Your task to perform on an android device: Search for a new blush Image 0: 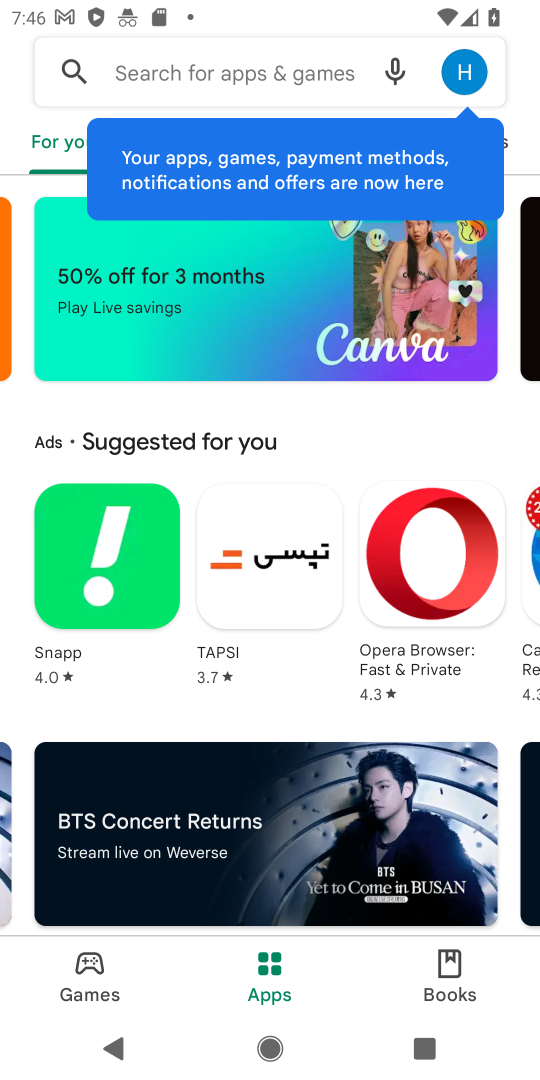
Step 0: press home button
Your task to perform on an android device: Search for a new blush Image 1: 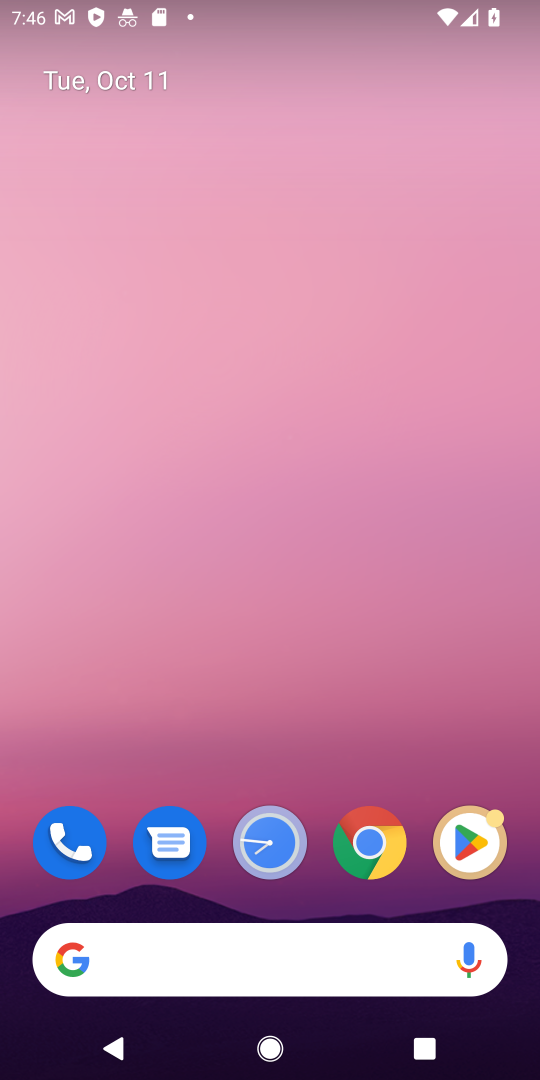
Step 1: click (219, 985)
Your task to perform on an android device: Search for a new blush Image 2: 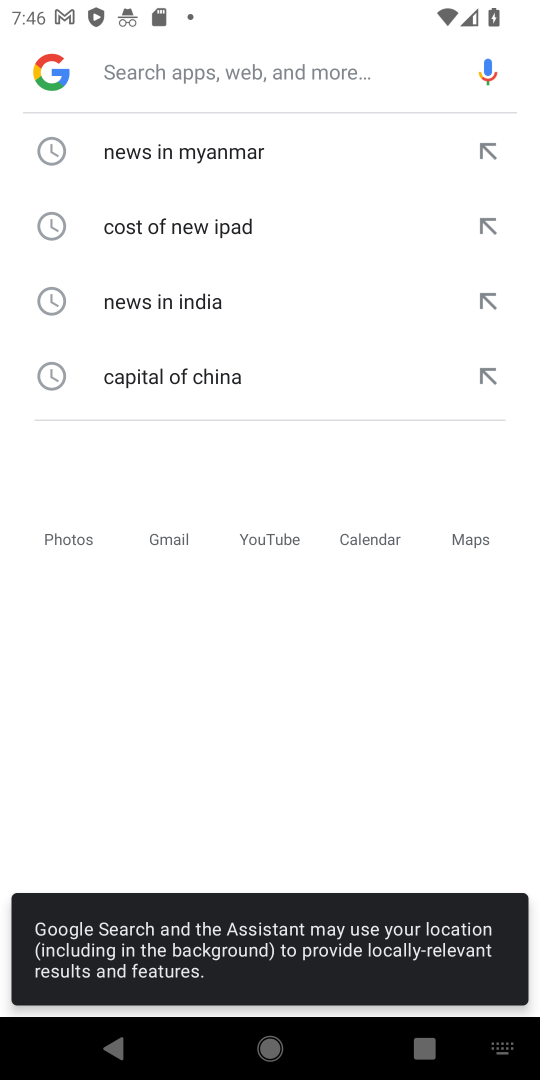
Step 2: click (252, 961)
Your task to perform on an android device: Search for a new blush Image 3: 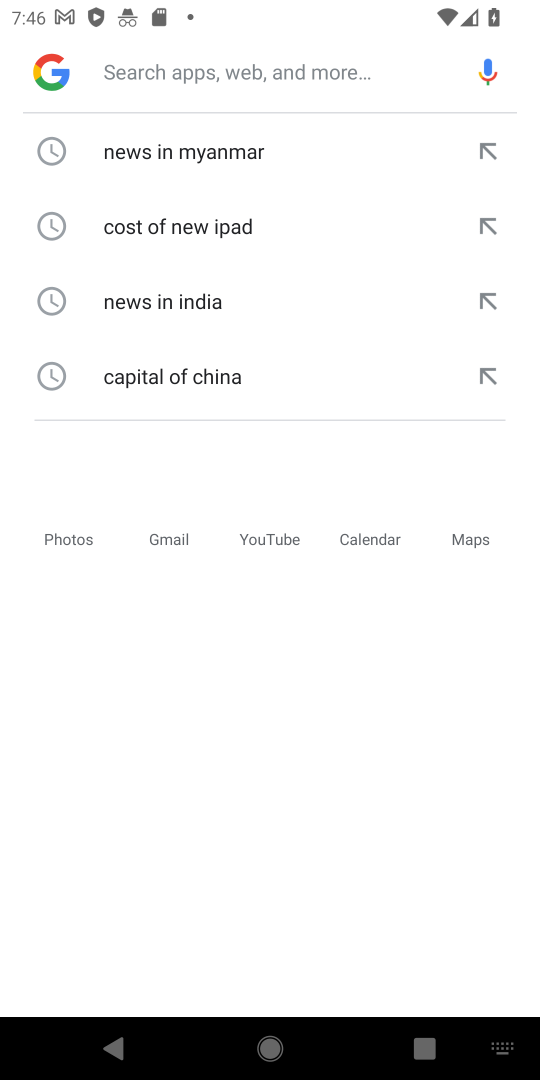
Step 3: type "Search for a new blush"
Your task to perform on an android device: Search for a new blush Image 4: 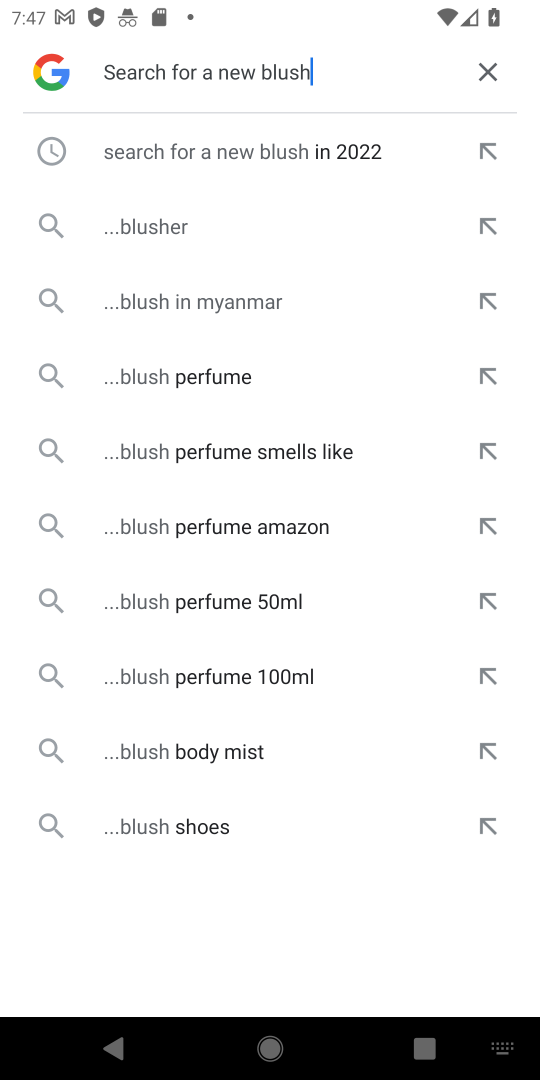
Step 4: click (261, 151)
Your task to perform on an android device: Search for a new blush Image 5: 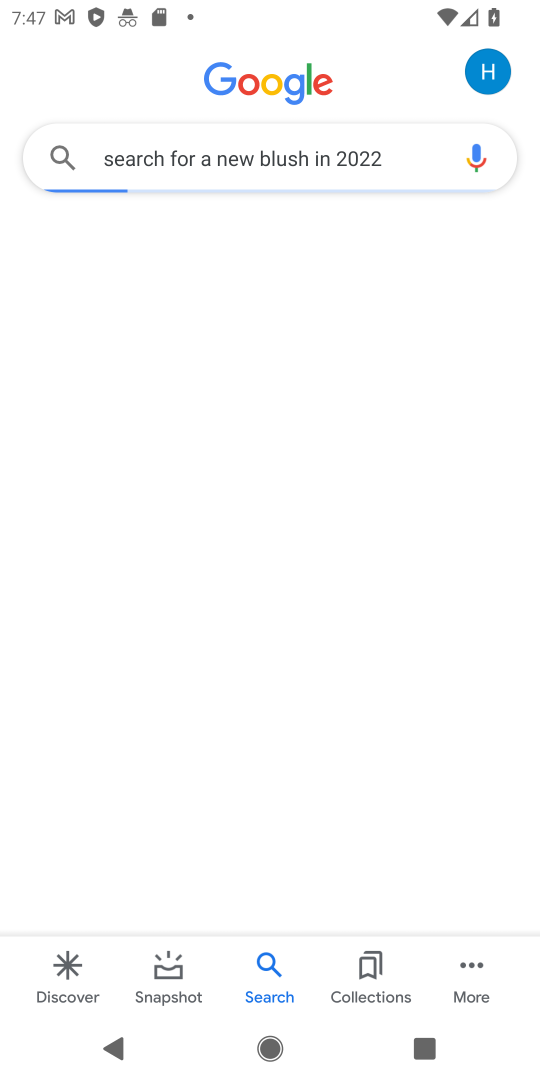
Step 5: click (261, 151)
Your task to perform on an android device: Search for a new blush Image 6: 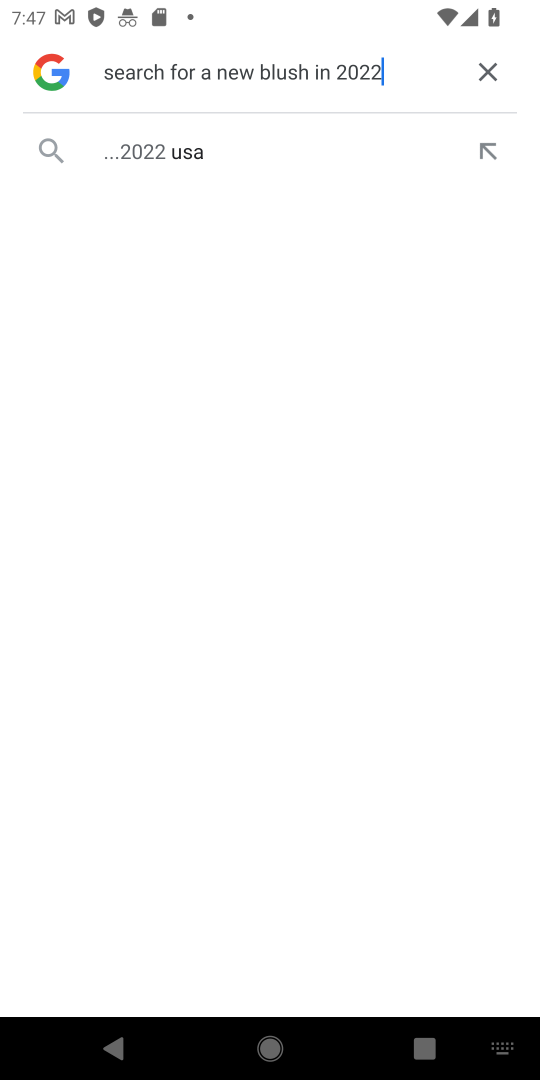
Step 6: click (157, 146)
Your task to perform on an android device: Search for a new blush Image 7: 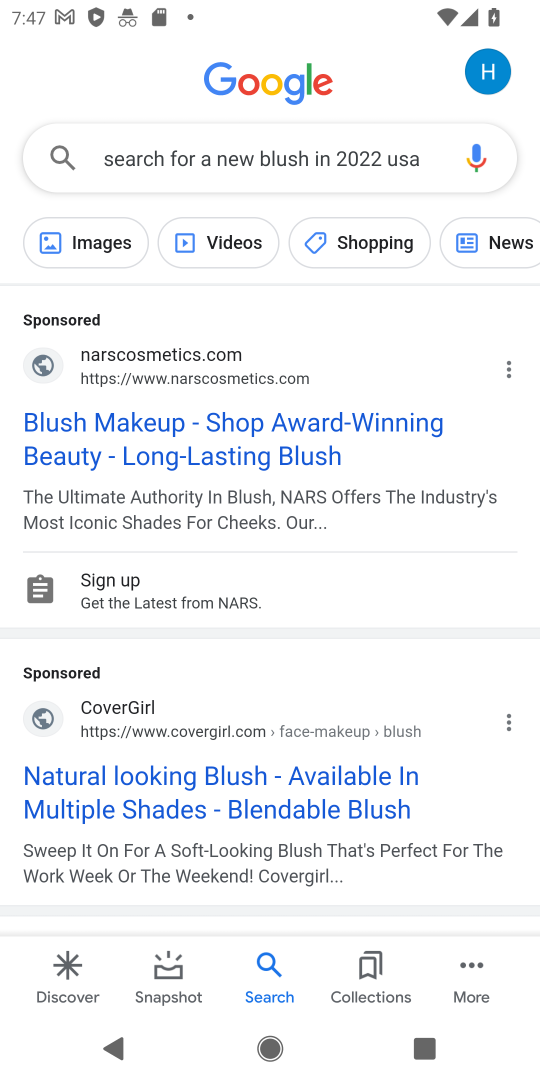
Step 7: task complete